Your task to perform on an android device: Toggle notifications for the Google Maps app Image 0: 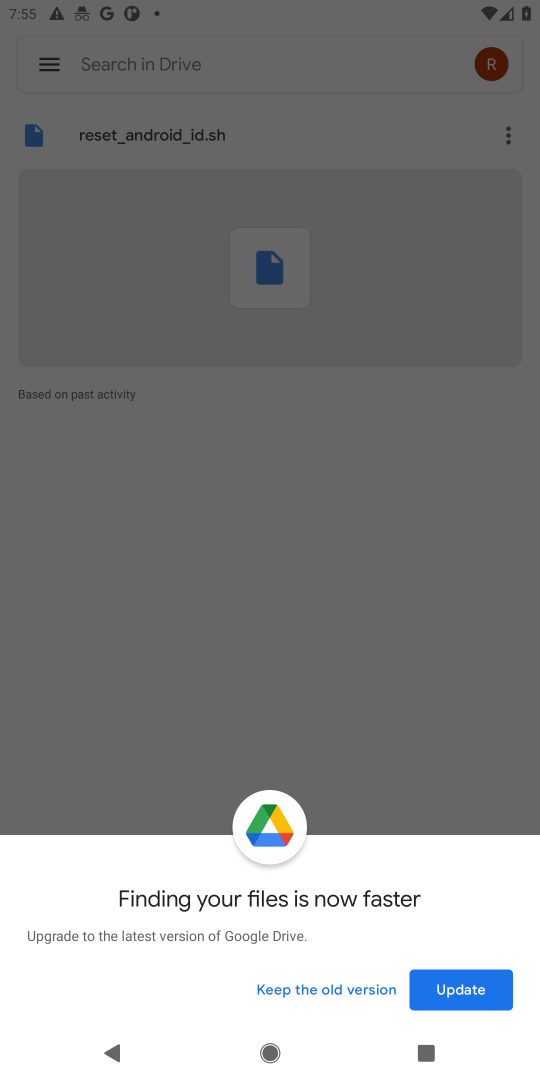
Step 0: press home button
Your task to perform on an android device: Toggle notifications for the Google Maps app Image 1: 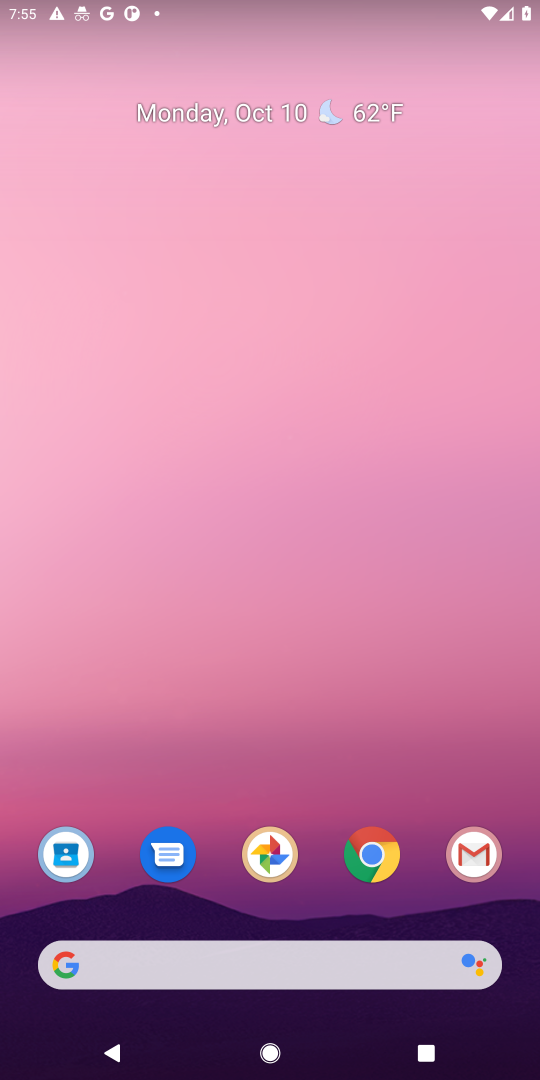
Step 1: drag from (254, 904) to (467, 306)
Your task to perform on an android device: Toggle notifications for the Google Maps app Image 2: 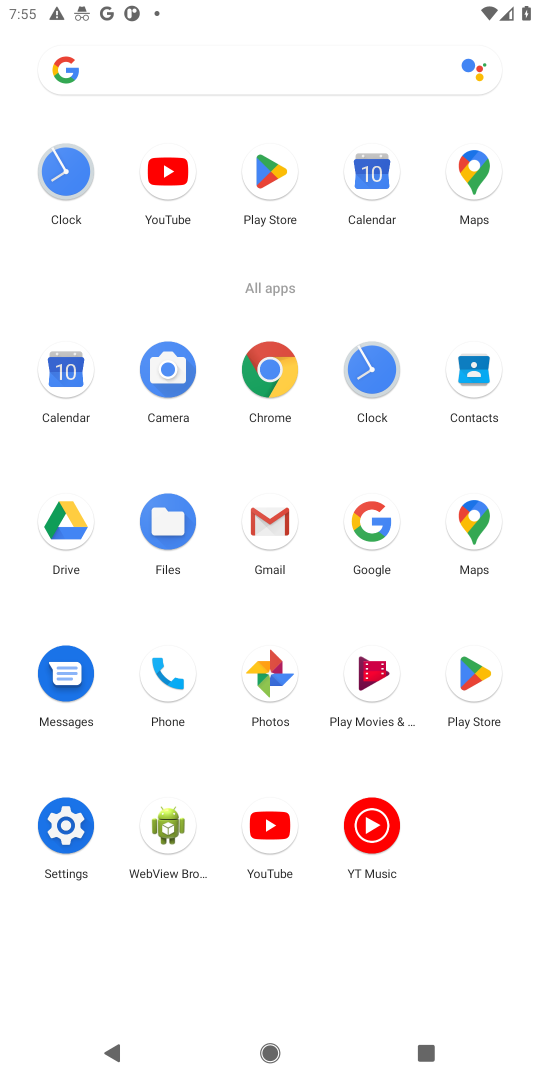
Step 2: click (465, 169)
Your task to perform on an android device: Toggle notifications for the Google Maps app Image 3: 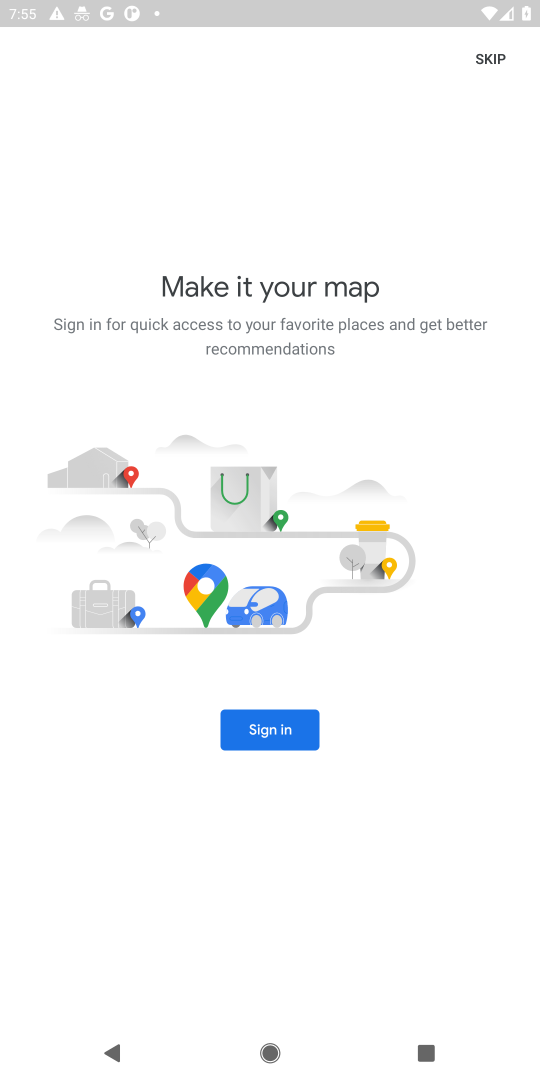
Step 3: click (485, 56)
Your task to perform on an android device: Toggle notifications for the Google Maps app Image 4: 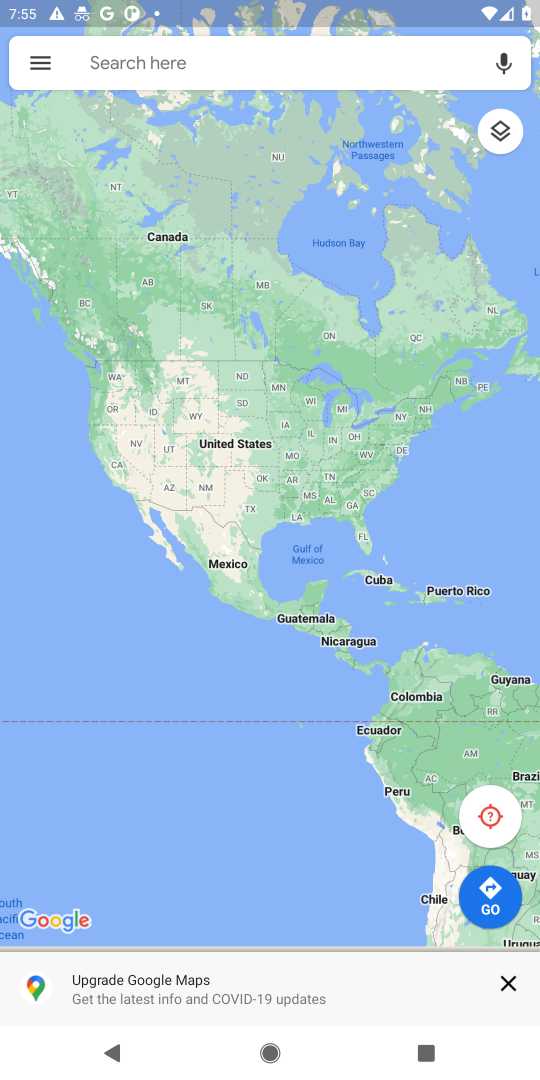
Step 4: click (37, 60)
Your task to perform on an android device: Toggle notifications for the Google Maps app Image 5: 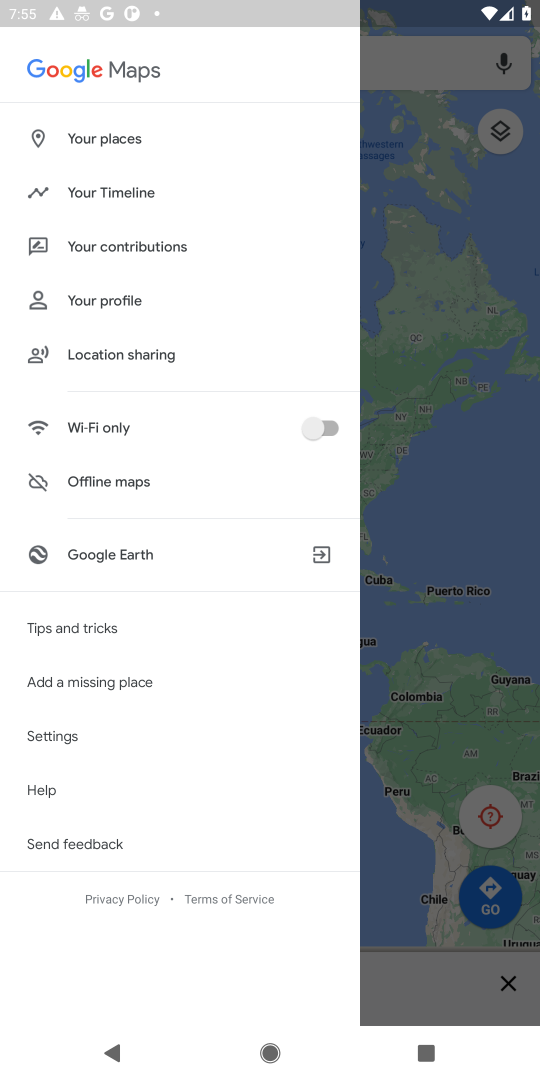
Step 5: click (41, 732)
Your task to perform on an android device: Toggle notifications for the Google Maps app Image 6: 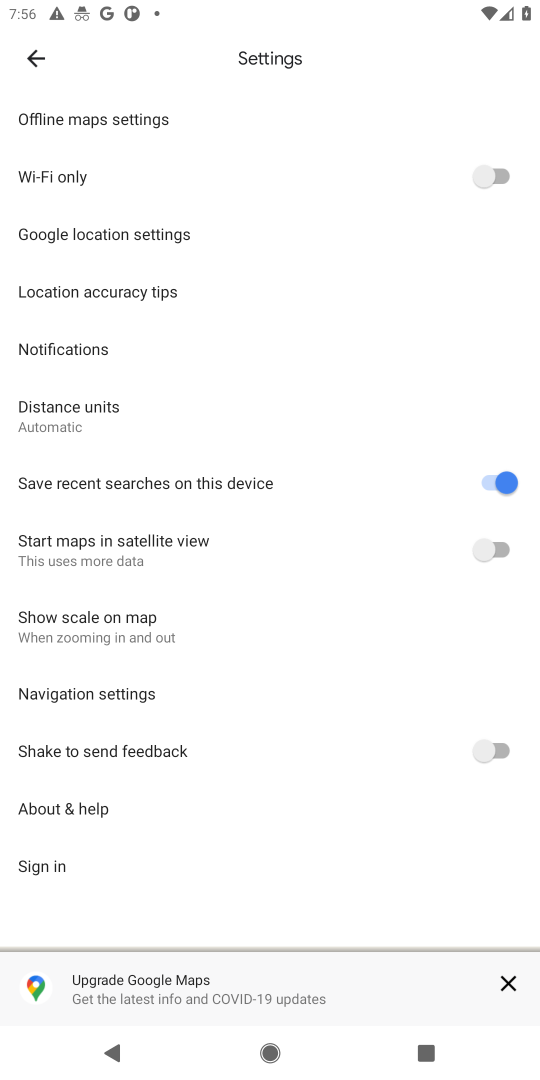
Step 6: drag from (218, 874) to (392, 320)
Your task to perform on an android device: Toggle notifications for the Google Maps app Image 7: 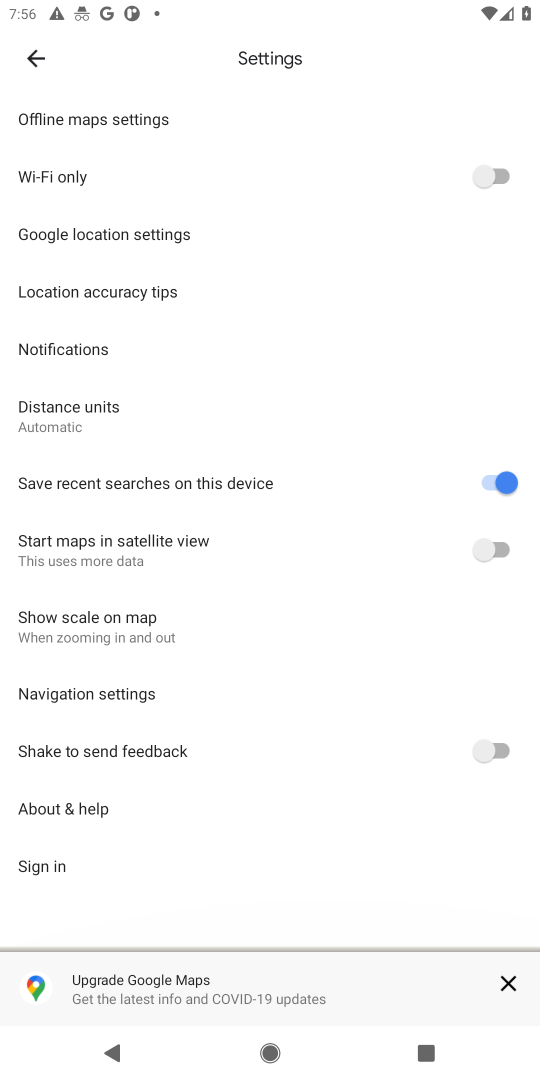
Step 7: drag from (388, 268) to (332, 802)
Your task to perform on an android device: Toggle notifications for the Google Maps app Image 8: 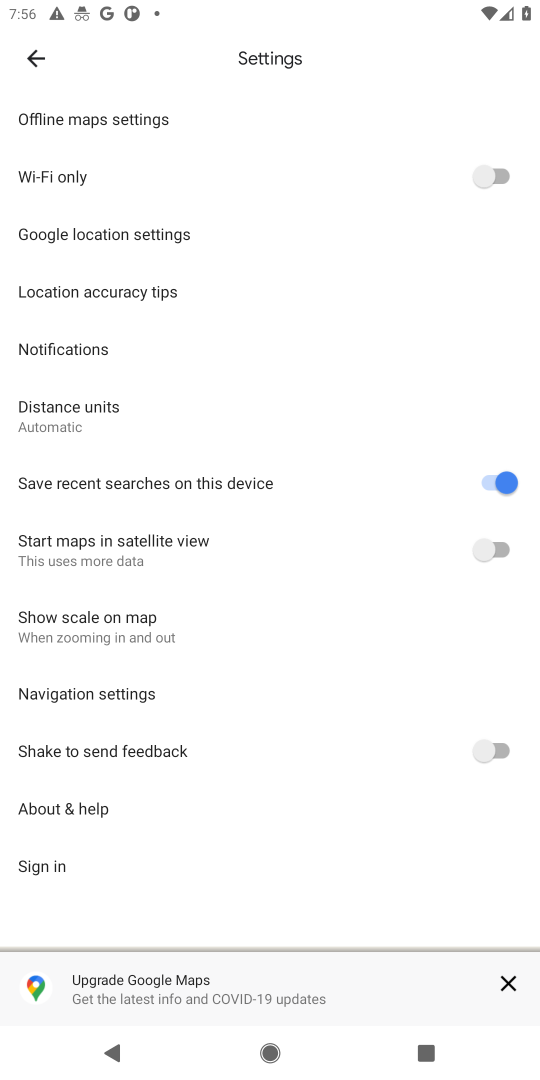
Step 8: click (87, 347)
Your task to perform on an android device: Toggle notifications for the Google Maps app Image 9: 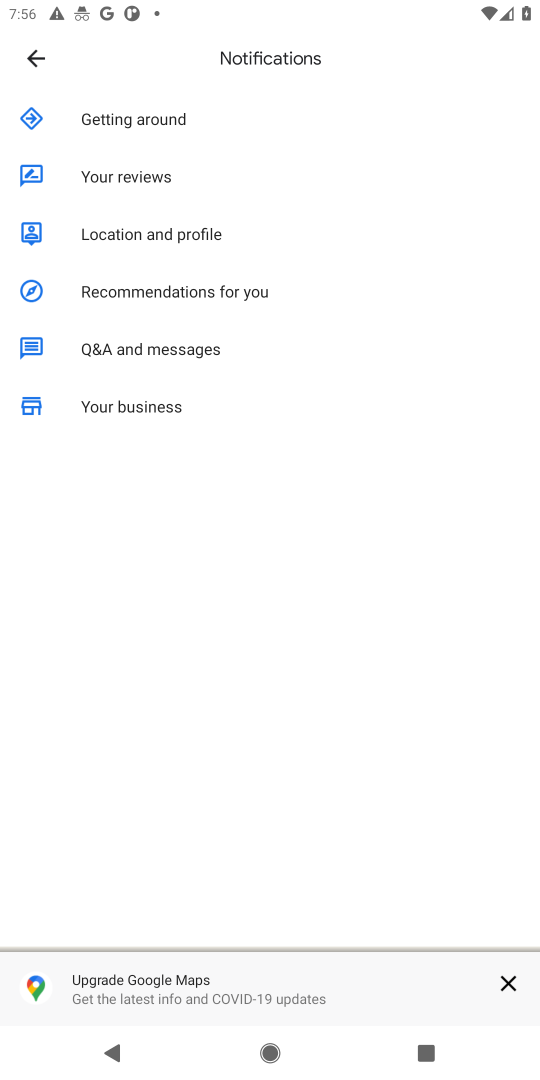
Step 9: task complete